Your task to perform on an android device: Open Wikipedia Image 0: 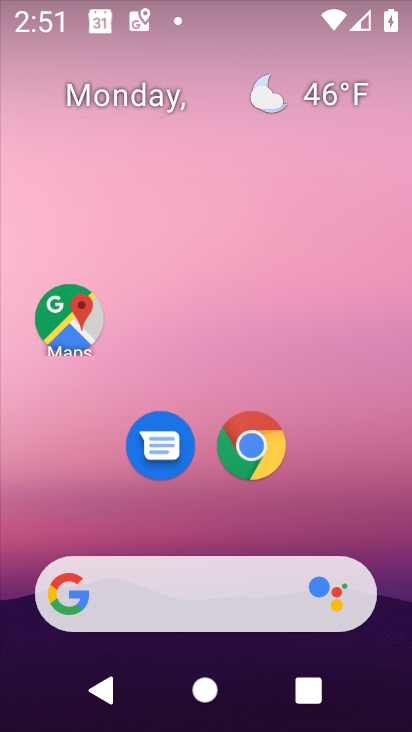
Step 0: drag from (329, 511) to (297, 81)
Your task to perform on an android device: Open Wikipedia Image 1: 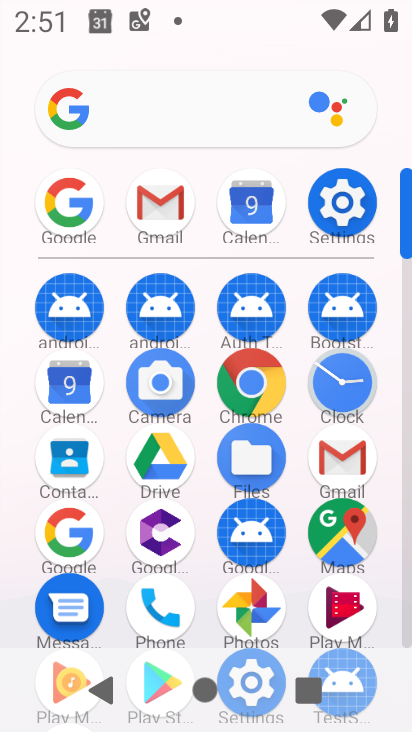
Step 1: click (268, 382)
Your task to perform on an android device: Open Wikipedia Image 2: 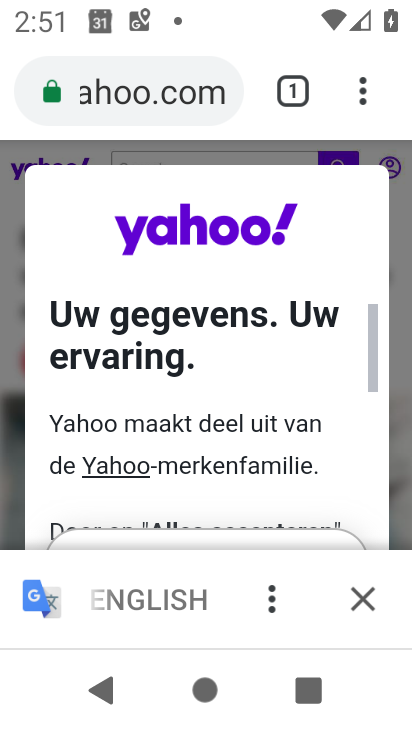
Step 2: click (154, 95)
Your task to perform on an android device: Open Wikipedia Image 3: 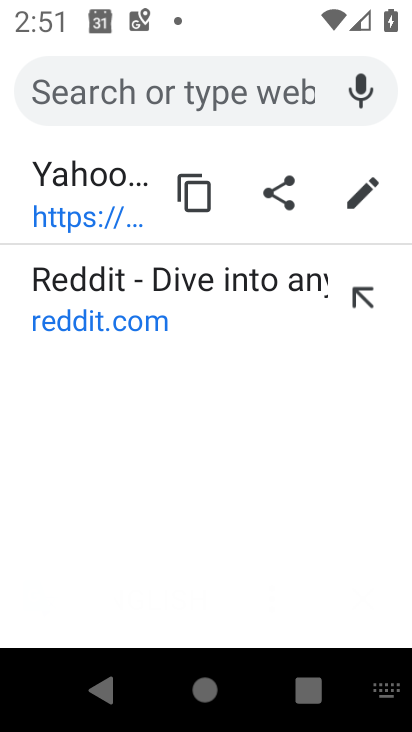
Step 3: type "wikipedia"
Your task to perform on an android device: Open Wikipedia Image 4: 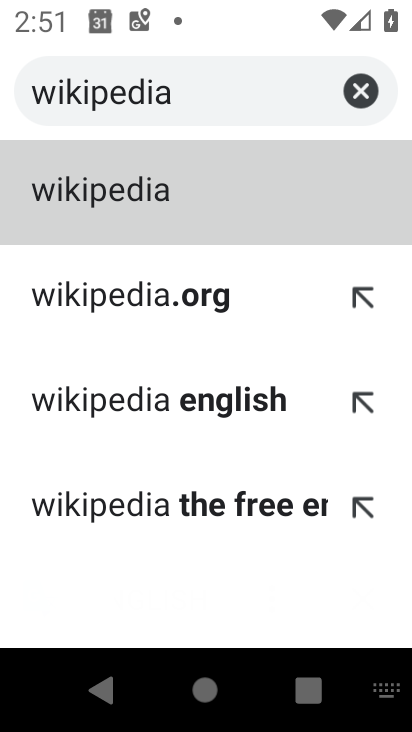
Step 4: click (251, 217)
Your task to perform on an android device: Open Wikipedia Image 5: 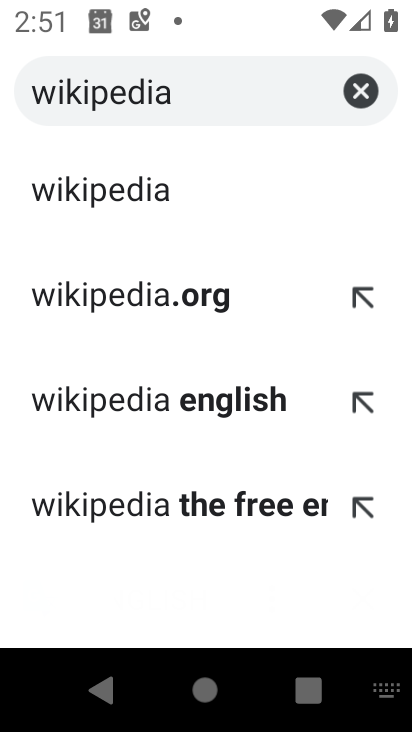
Step 5: click (143, 186)
Your task to perform on an android device: Open Wikipedia Image 6: 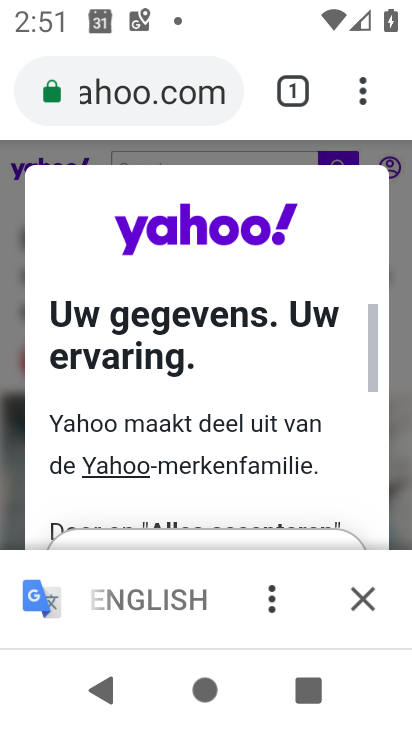
Step 6: task complete